Your task to perform on an android device: What is the news today? Image 0: 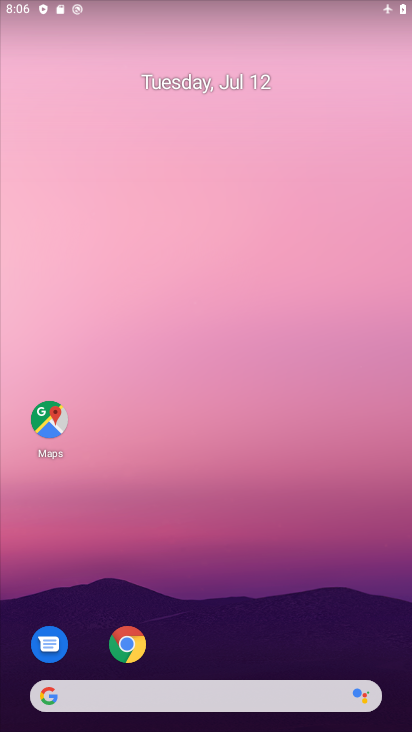
Step 0: drag from (219, 650) to (224, 293)
Your task to perform on an android device: What is the news today? Image 1: 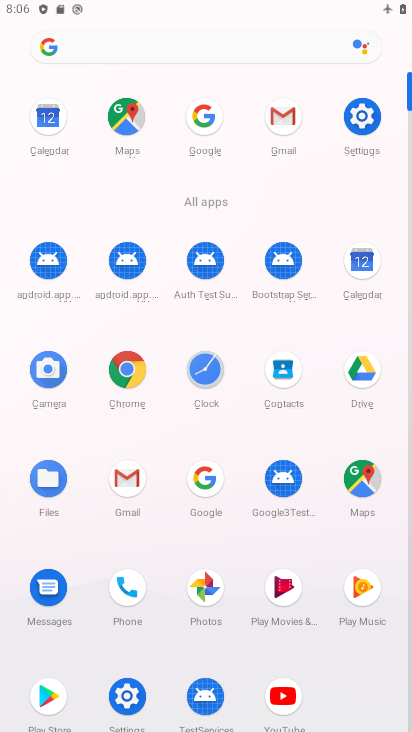
Step 1: click (207, 474)
Your task to perform on an android device: What is the news today? Image 2: 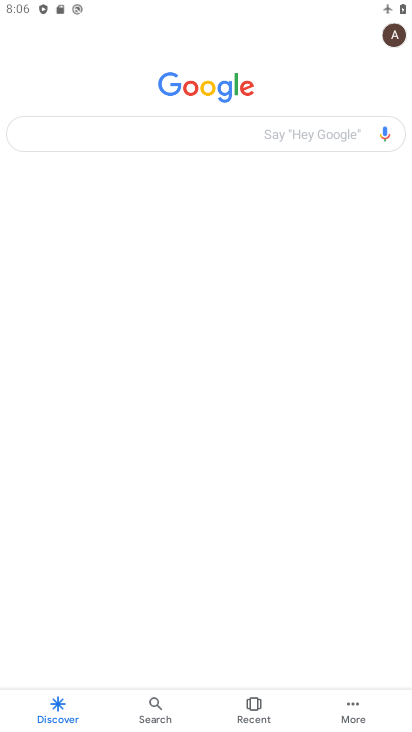
Step 2: click (153, 142)
Your task to perform on an android device: What is the news today? Image 3: 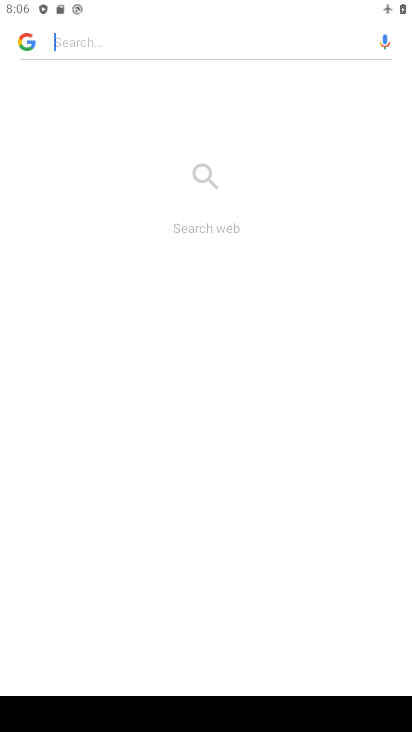
Step 3: type "news today"
Your task to perform on an android device: What is the news today? Image 4: 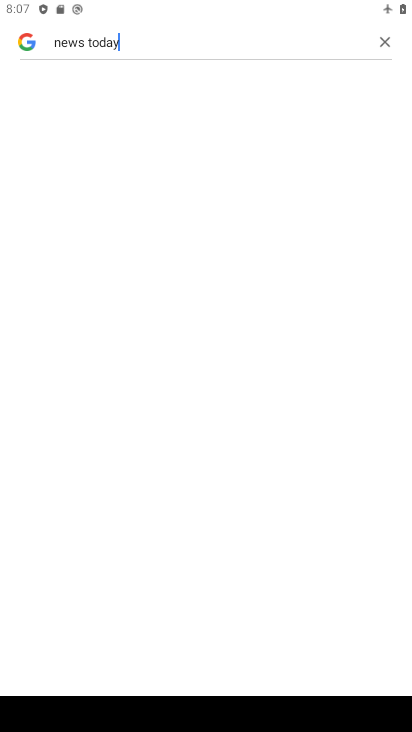
Step 4: task complete